Your task to perform on an android device: turn on data saver in the chrome app Image 0: 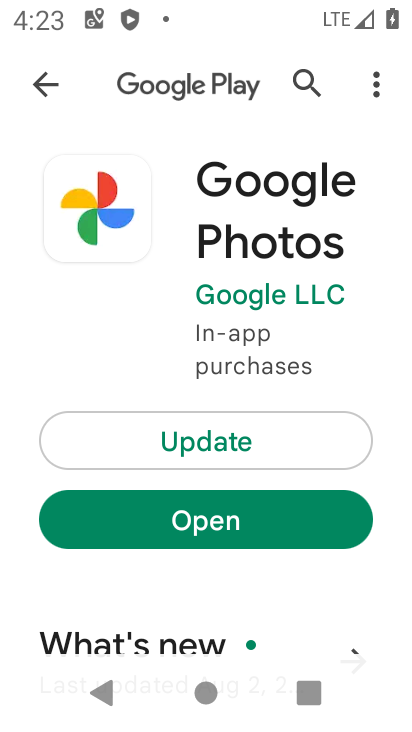
Step 0: press home button
Your task to perform on an android device: turn on data saver in the chrome app Image 1: 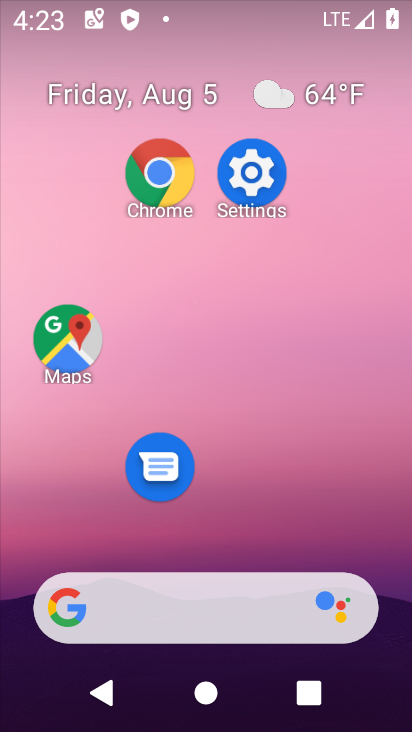
Step 1: drag from (268, 545) to (327, 47)
Your task to perform on an android device: turn on data saver in the chrome app Image 2: 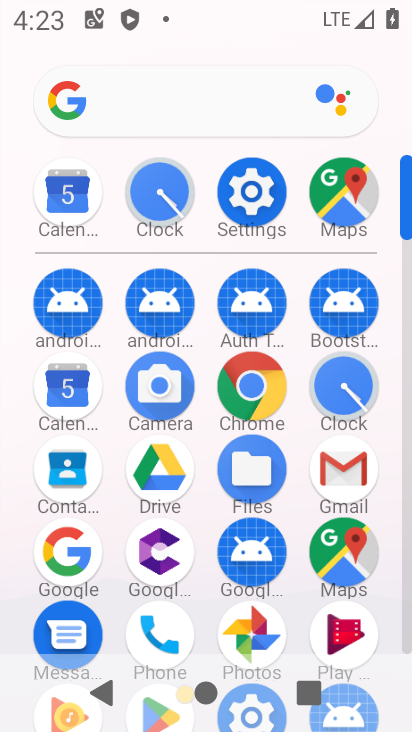
Step 2: drag from (202, 524) to (240, 159)
Your task to perform on an android device: turn on data saver in the chrome app Image 3: 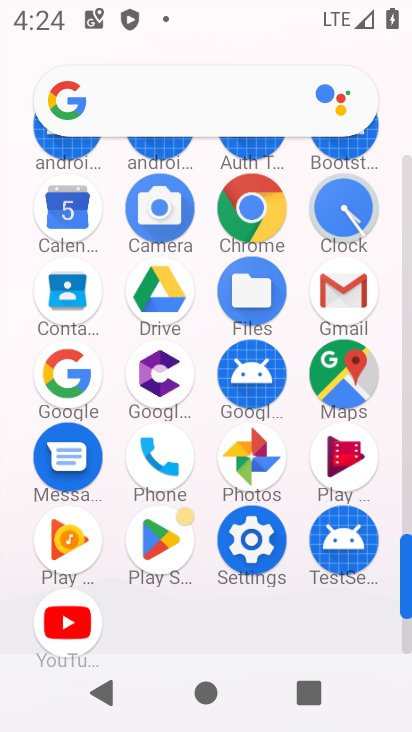
Step 3: click (236, 201)
Your task to perform on an android device: turn on data saver in the chrome app Image 4: 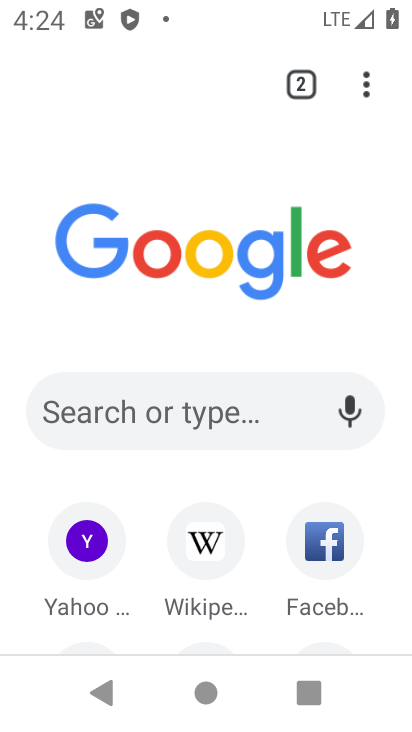
Step 4: drag from (370, 81) to (99, 498)
Your task to perform on an android device: turn on data saver in the chrome app Image 5: 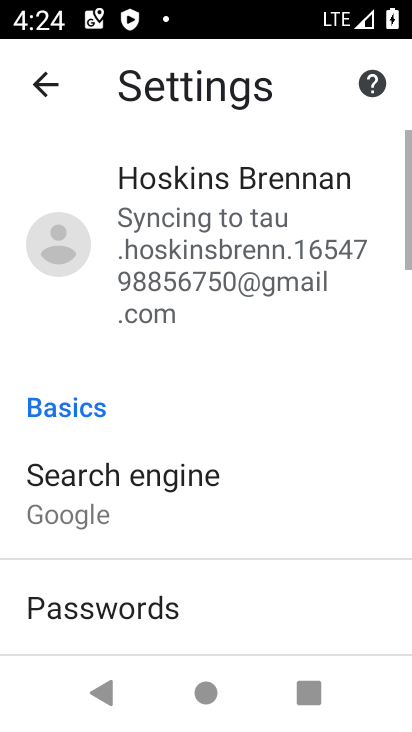
Step 5: drag from (172, 506) to (223, 159)
Your task to perform on an android device: turn on data saver in the chrome app Image 6: 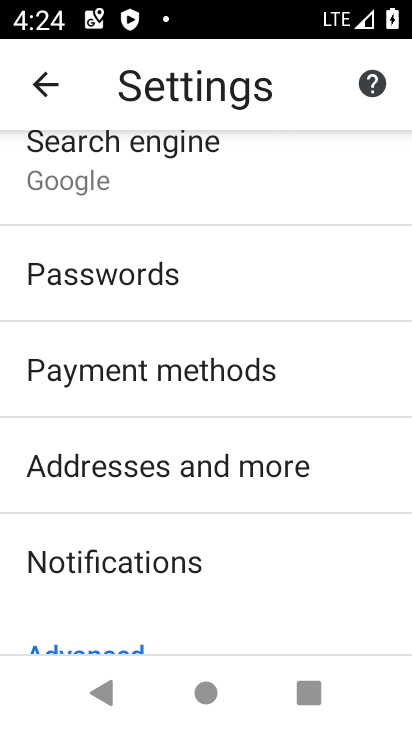
Step 6: drag from (234, 593) to (286, 136)
Your task to perform on an android device: turn on data saver in the chrome app Image 7: 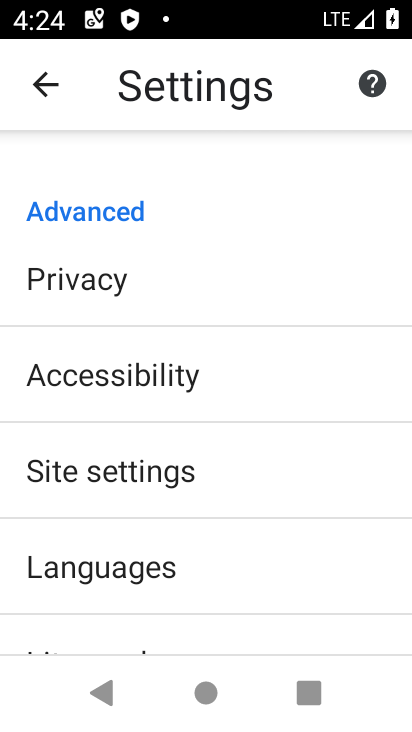
Step 7: drag from (255, 545) to (282, 293)
Your task to perform on an android device: turn on data saver in the chrome app Image 8: 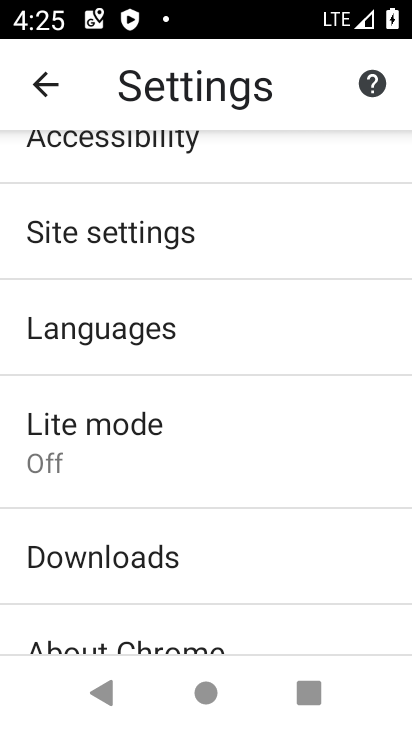
Step 8: click (42, 432)
Your task to perform on an android device: turn on data saver in the chrome app Image 9: 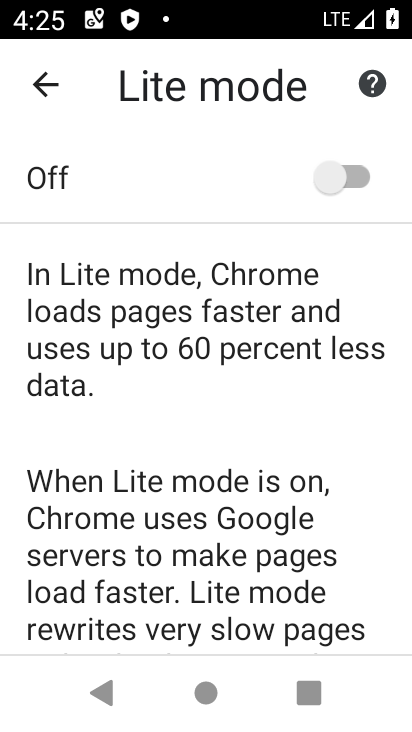
Step 9: click (344, 170)
Your task to perform on an android device: turn on data saver in the chrome app Image 10: 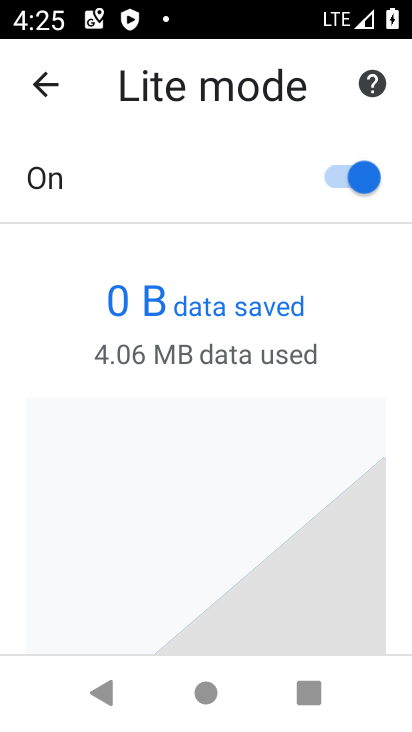
Step 10: task complete